Your task to perform on an android device: set the stopwatch Image 0: 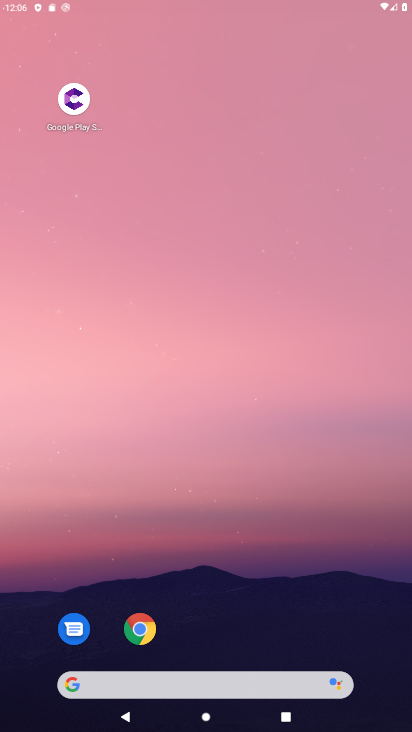
Step 0: press home button
Your task to perform on an android device: set the stopwatch Image 1: 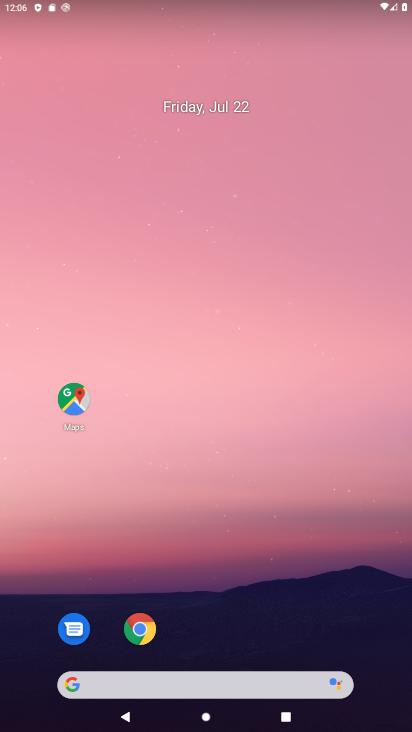
Step 1: drag from (320, 588) to (343, 108)
Your task to perform on an android device: set the stopwatch Image 2: 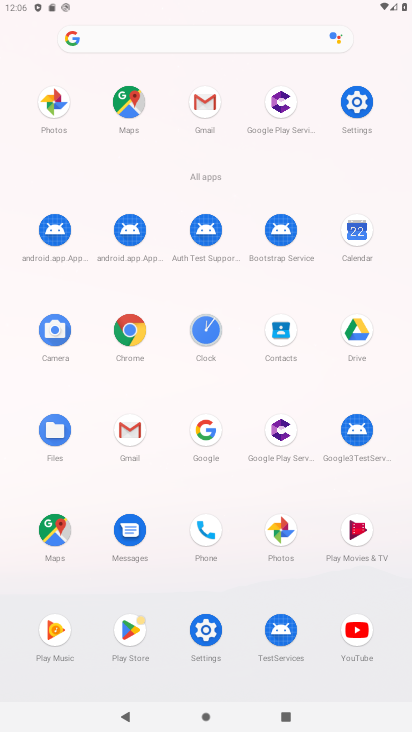
Step 2: click (206, 335)
Your task to perform on an android device: set the stopwatch Image 3: 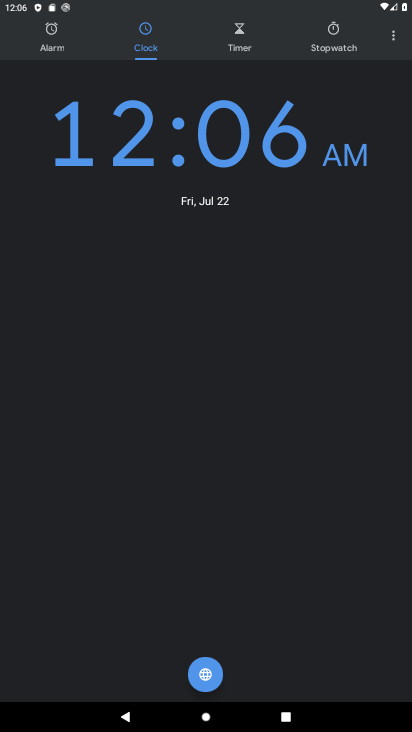
Step 3: click (328, 37)
Your task to perform on an android device: set the stopwatch Image 4: 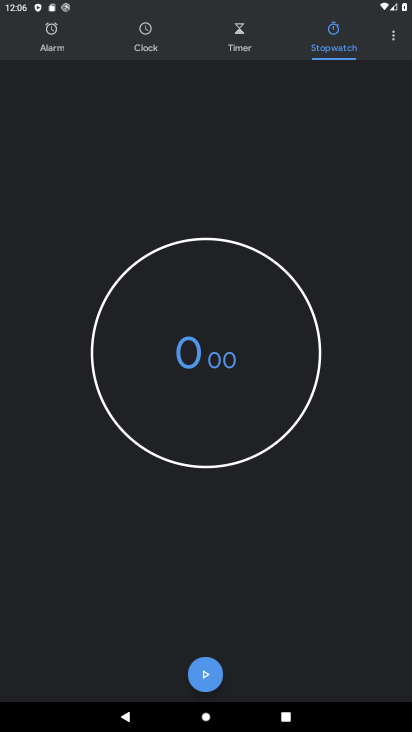
Step 4: click (207, 676)
Your task to perform on an android device: set the stopwatch Image 5: 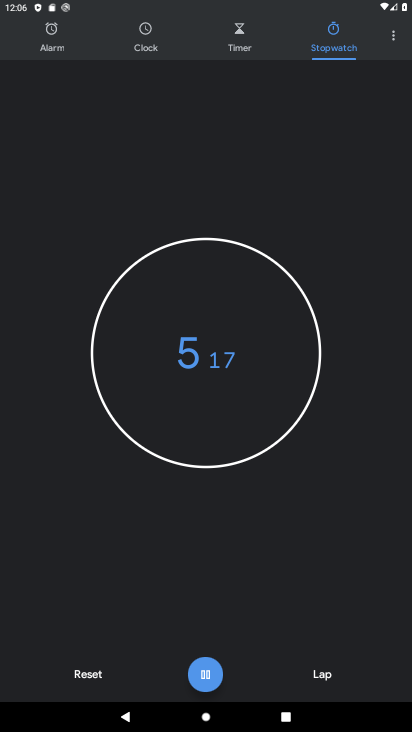
Step 5: task complete